Your task to perform on an android device: set the stopwatch Image 0: 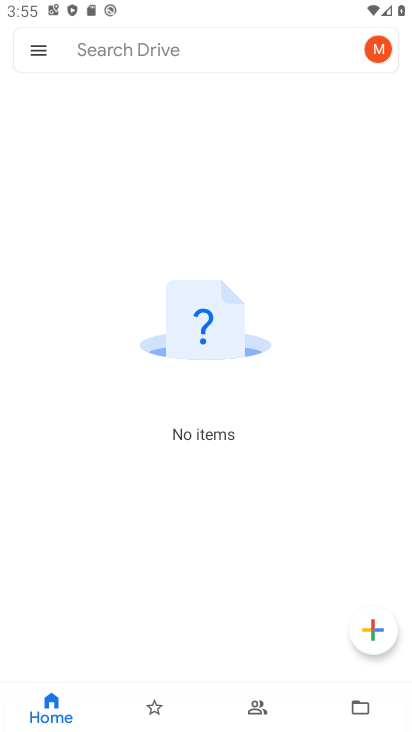
Step 0: press home button
Your task to perform on an android device: set the stopwatch Image 1: 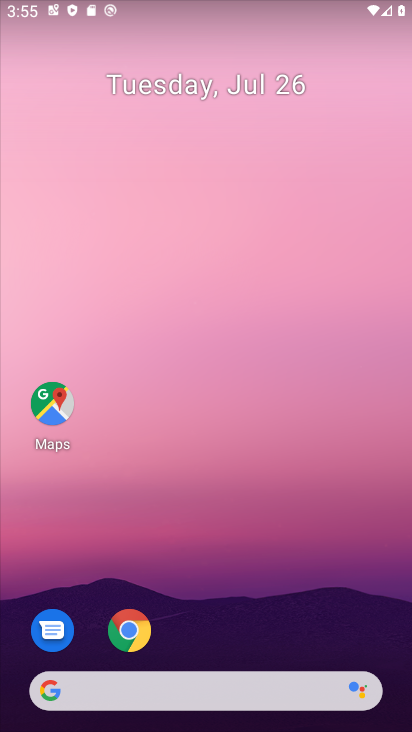
Step 1: drag from (272, 628) to (157, 43)
Your task to perform on an android device: set the stopwatch Image 2: 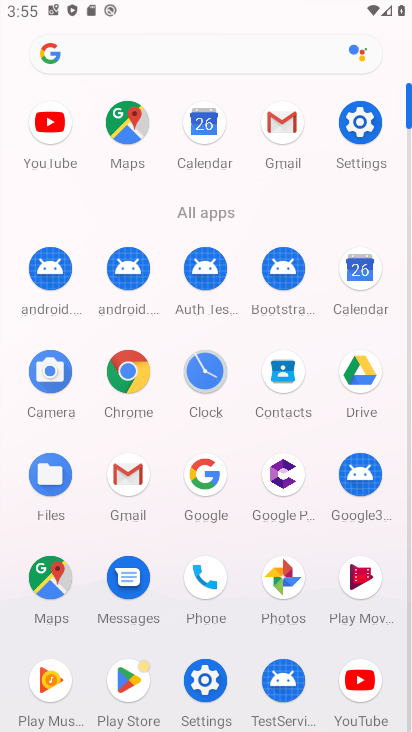
Step 2: click (207, 366)
Your task to perform on an android device: set the stopwatch Image 3: 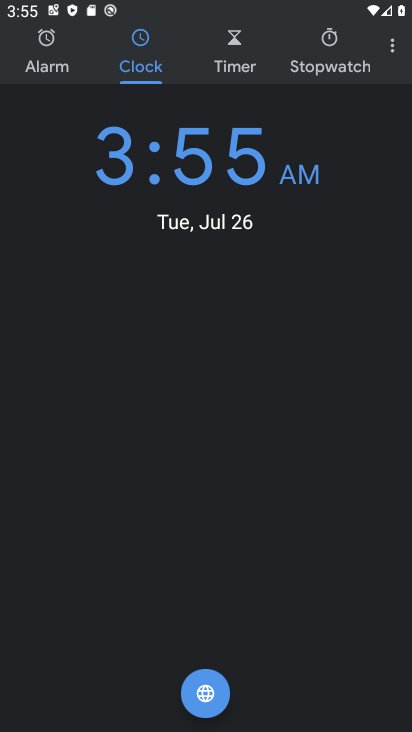
Step 3: click (321, 74)
Your task to perform on an android device: set the stopwatch Image 4: 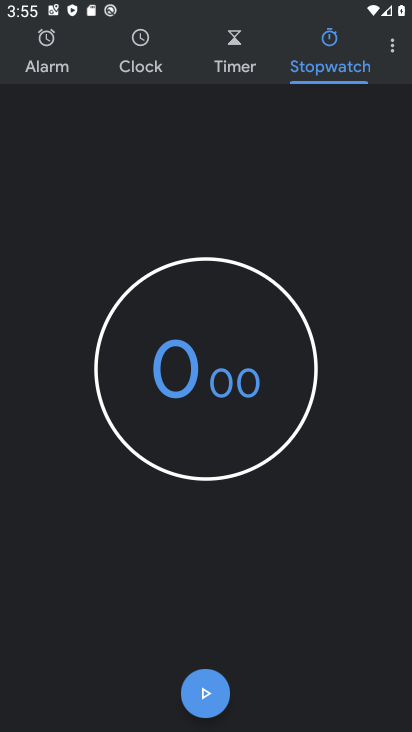
Step 4: click (205, 710)
Your task to perform on an android device: set the stopwatch Image 5: 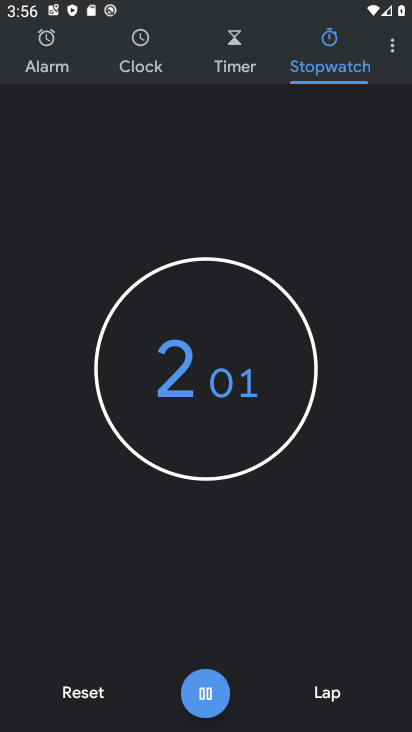
Step 5: task complete